Your task to perform on an android device: Open location settings Image 0: 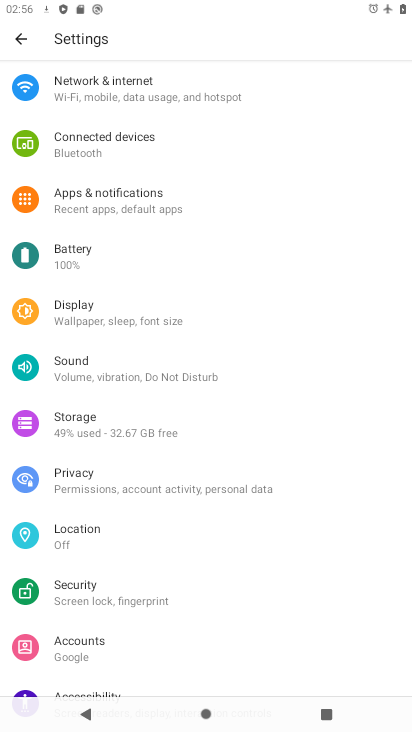
Step 0: click (174, 542)
Your task to perform on an android device: Open location settings Image 1: 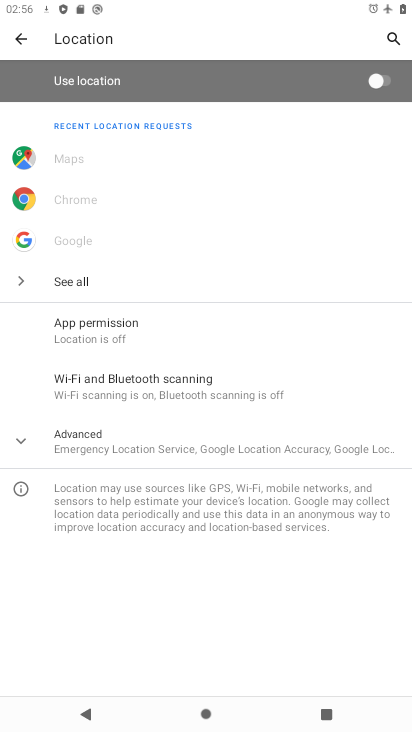
Step 1: task complete